Your task to perform on an android device: Search for Italian restaurants on Maps Image 0: 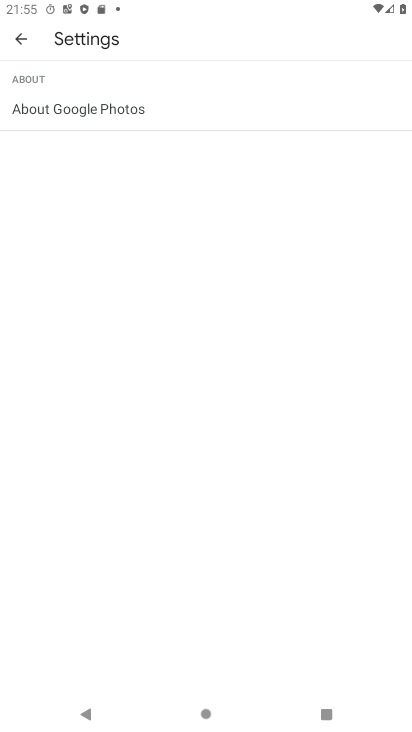
Step 0: press home button
Your task to perform on an android device: Search for Italian restaurants on Maps Image 1: 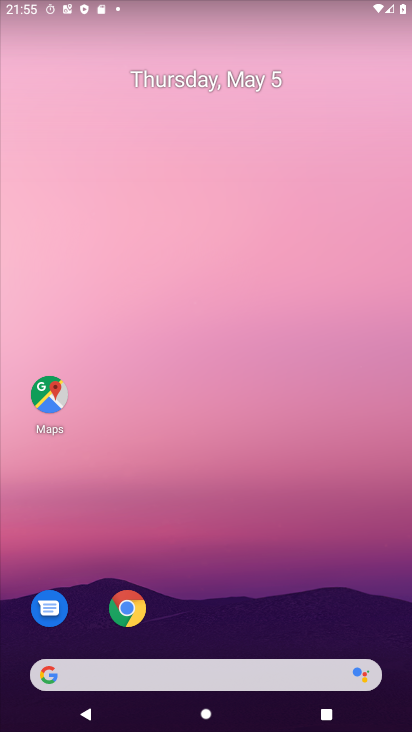
Step 1: drag from (261, 709) to (239, 44)
Your task to perform on an android device: Search for Italian restaurants on Maps Image 2: 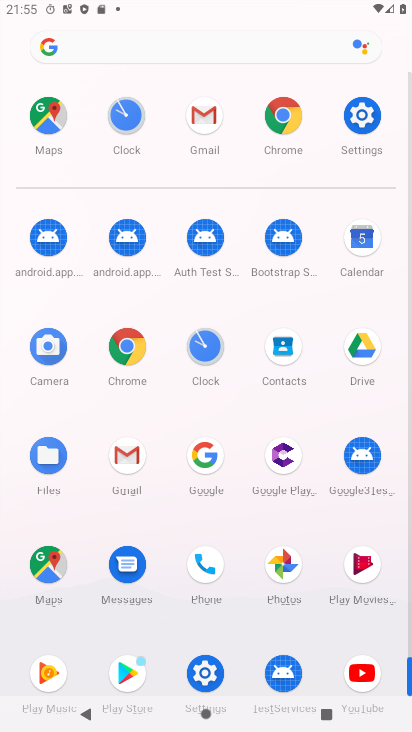
Step 2: click (48, 564)
Your task to perform on an android device: Search for Italian restaurants on Maps Image 3: 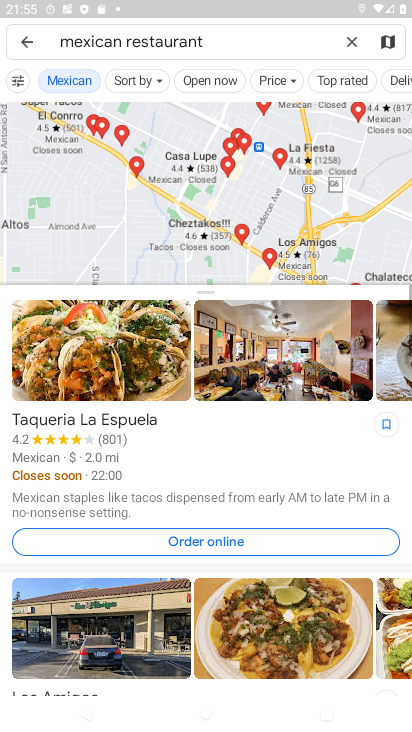
Step 3: click (257, 36)
Your task to perform on an android device: Search for Italian restaurants on Maps Image 4: 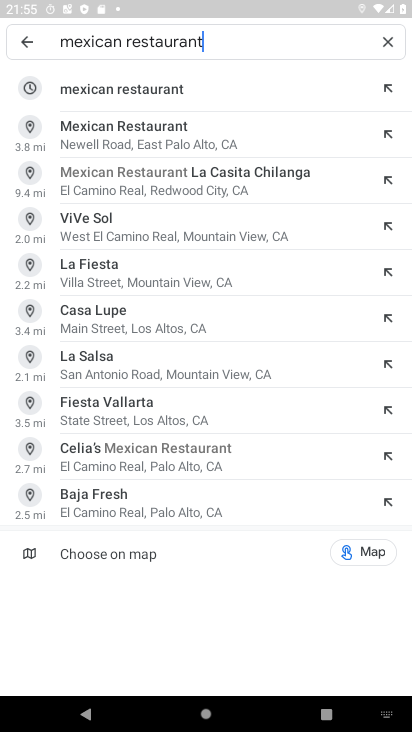
Step 4: click (387, 42)
Your task to perform on an android device: Search for Italian restaurants on Maps Image 5: 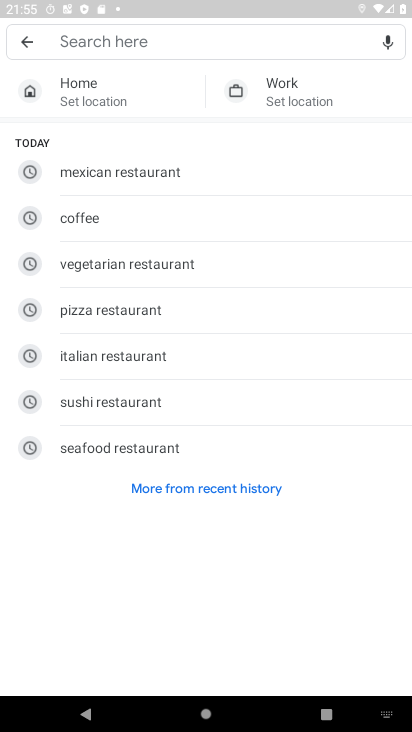
Step 5: click (324, 41)
Your task to perform on an android device: Search for Italian restaurants on Maps Image 6: 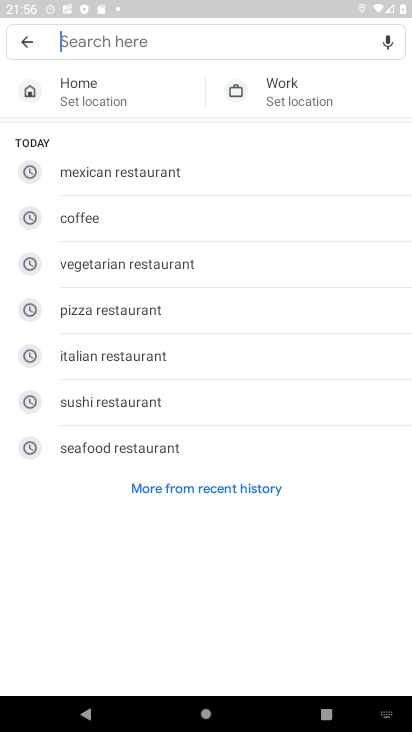
Step 6: type "italian restaurant"
Your task to perform on an android device: Search for Italian restaurants on Maps Image 7: 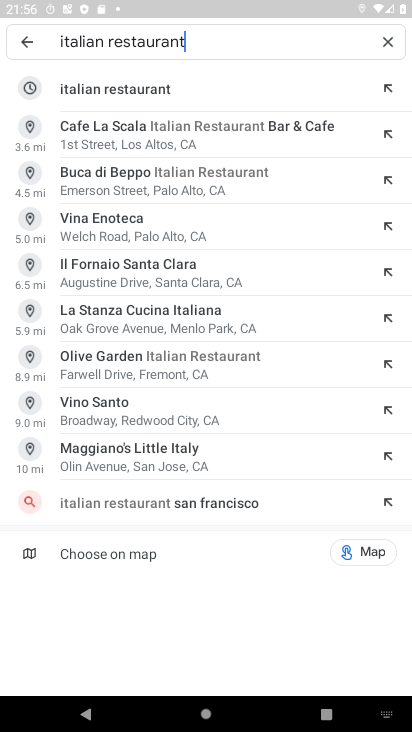
Step 7: click (132, 99)
Your task to perform on an android device: Search for Italian restaurants on Maps Image 8: 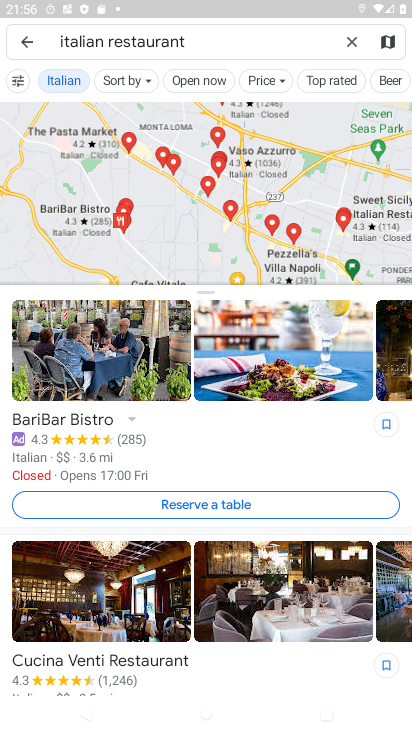
Step 8: task complete